Your task to perform on an android device: find snoozed emails in the gmail app Image 0: 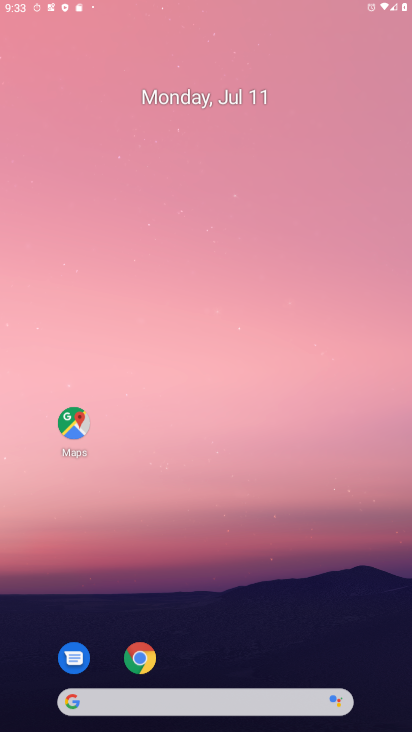
Step 0: click (303, 187)
Your task to perform on an android device: find snoozed emails in the gmail app Image 1: 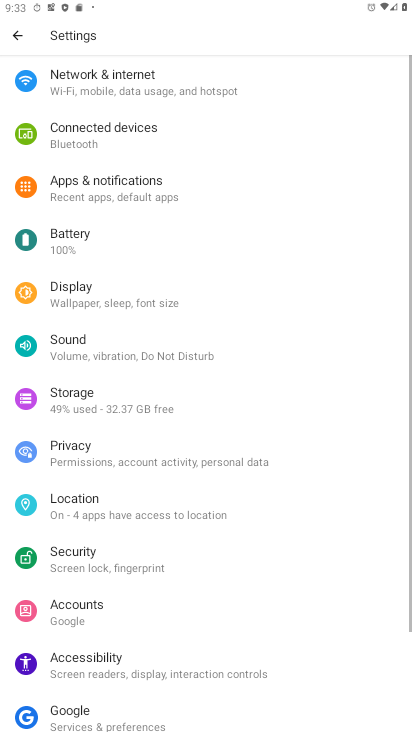
Step 1: press home button
Your task to perform on an android device: find snoozed emails in the gmail app Image 2: 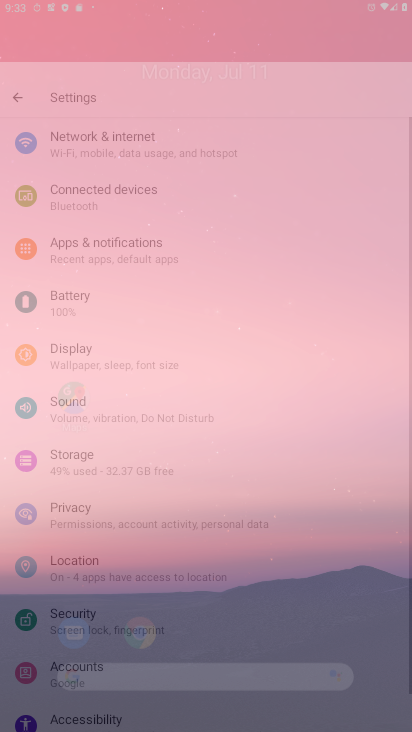
Step 2: drag from (188, 601) to (319, 170)
Your task to perform on an android device: find snoozed emails in the gmail app Image 3: 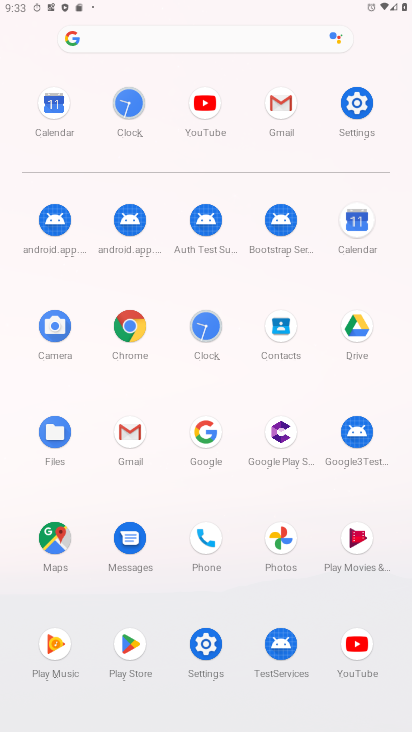
Step 3: click (137, 433)
Your task to perform on an android device: find snoozed emails in the gmail app Image 4: 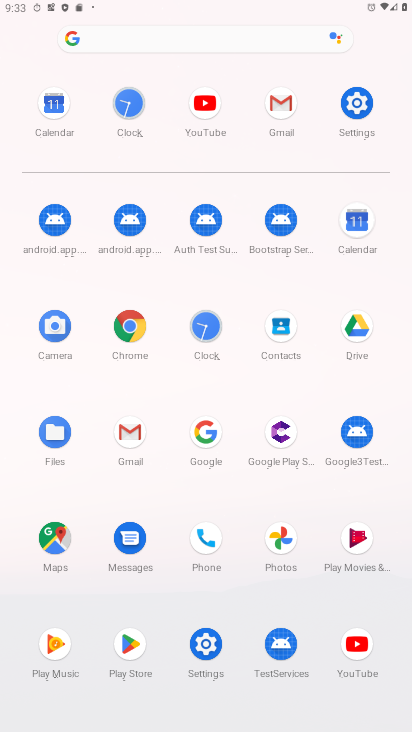
Step 4: click (137, 433)
Your task to perform on an android device: find snoozed emails in the gmail app Image 5: 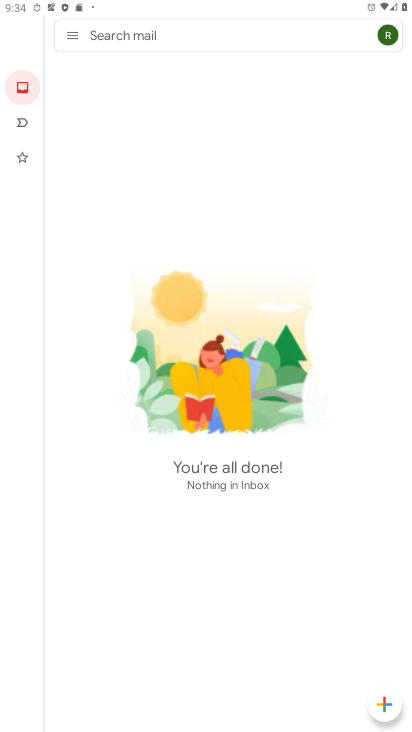
Step 5: click (73, 42)
Your task to perform on an android device: find snoozed emails in the gmail app Image 6: 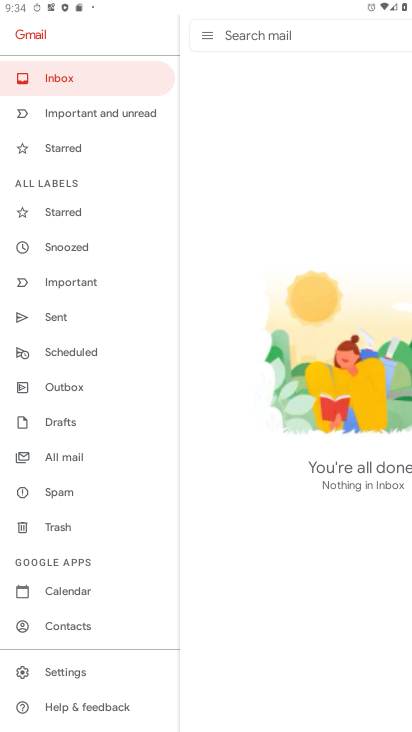
Step 6: click (67, 249)
Your task to perform on an android device: find snoozed emails in the gmail app Image 7: 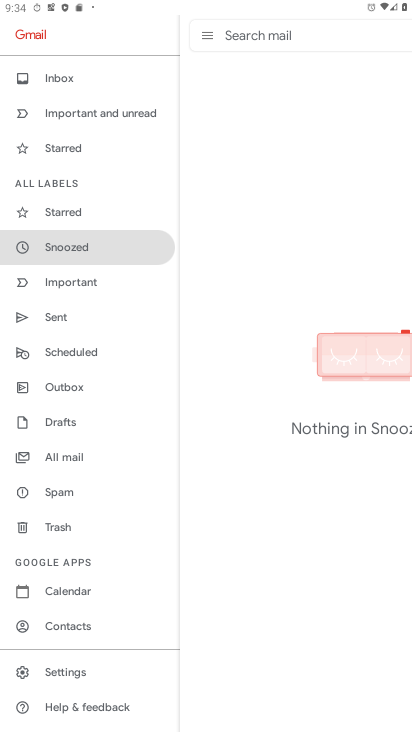
Step 7: drag from (319, 462) to (320, 239)
Your task to perform on an android device: find snoozed emails in the gmail app Image 8: 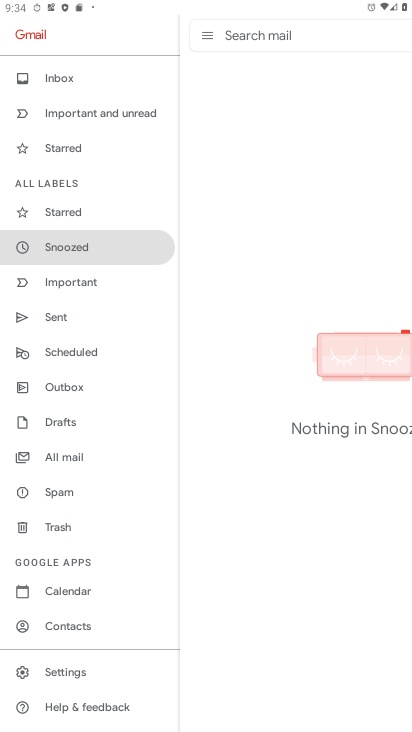
Step 8: click (203, 33)
Your task to perform on an android device: find snoozed emails in the gmail app Image 9: 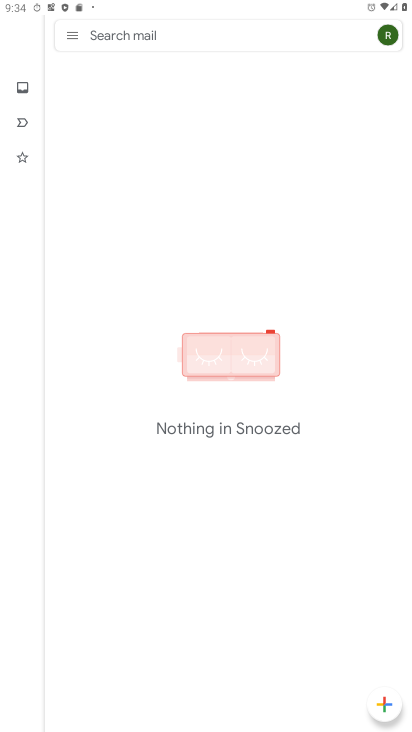
Step 9: task complete